Your task to perform on an android device: turn notification dots on Image 0: 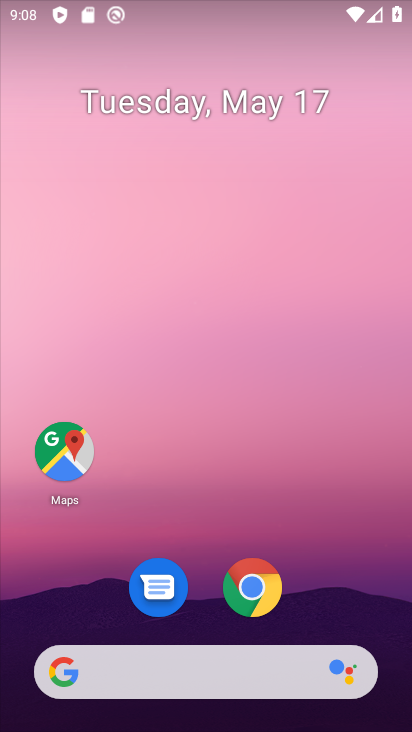
Step 0: drag from (368, 605) to (311, 259)
Your task to perform on an android device: turn notification dots on Image 1: 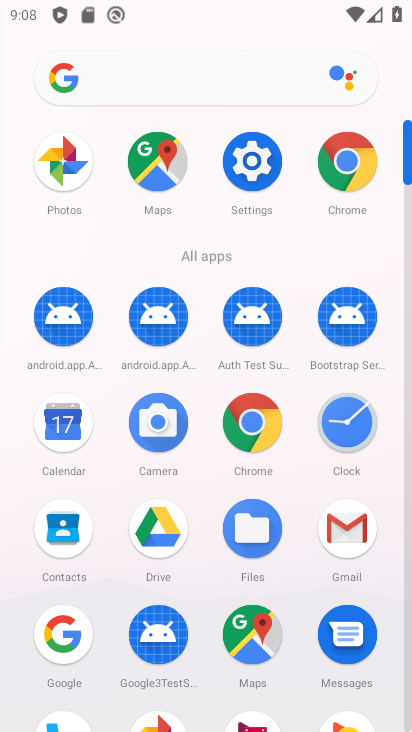
Step 1: click (256, 186)
Your task to perform on an android device: turn notification dots on Image 2: 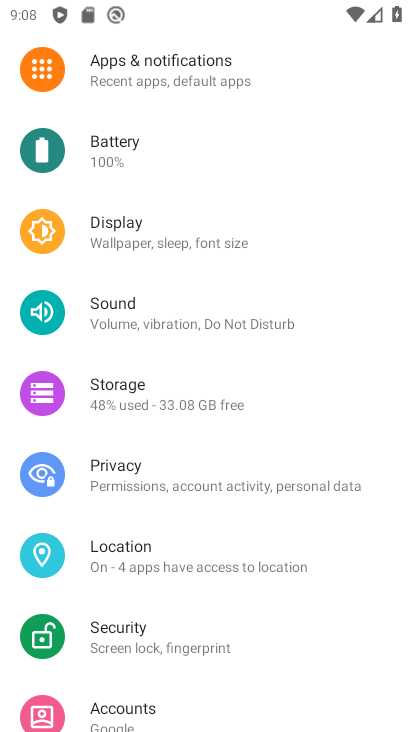
Step 2: drag from (195, 570) to (165, 687)
Your task to perform on an android device: turn notification dots on Image 3: 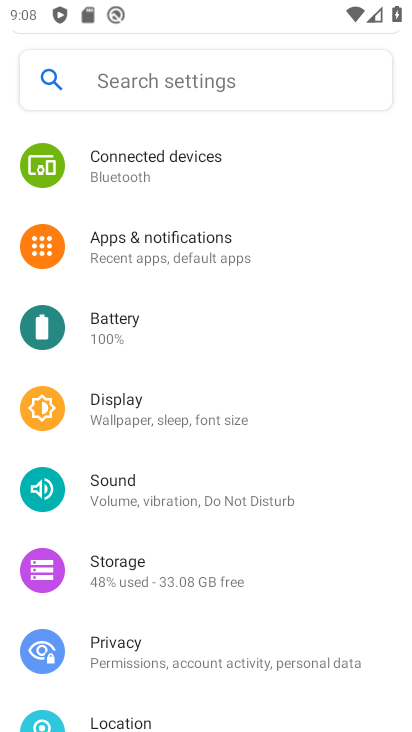
Step 3: click (164, 265)
Your task to perform on an android device: turn notification dots on Image 4: 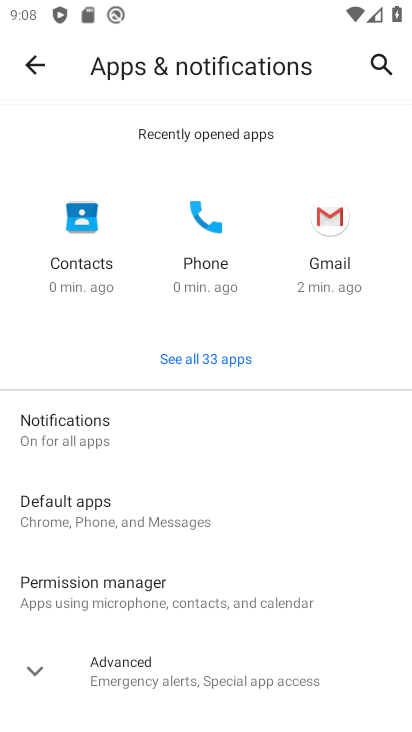
Step 4: drag from (196, 473) to (192, 276)
Your task to perform on an android device: turn notification dots on Image 5: 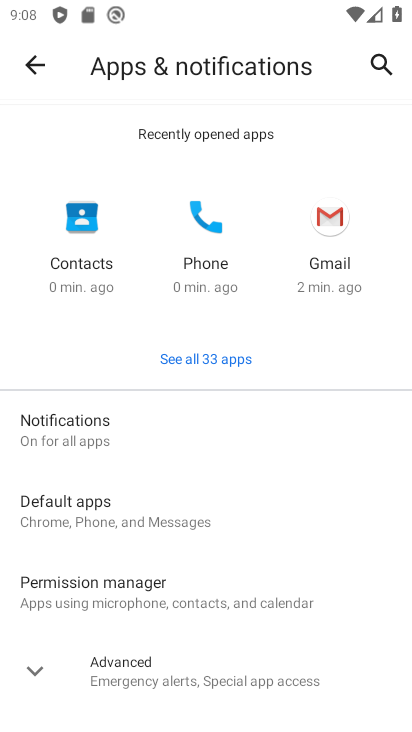
Step 5: click (157, 429)
Your task to perform on an android device: turn notification dots on Image 6: 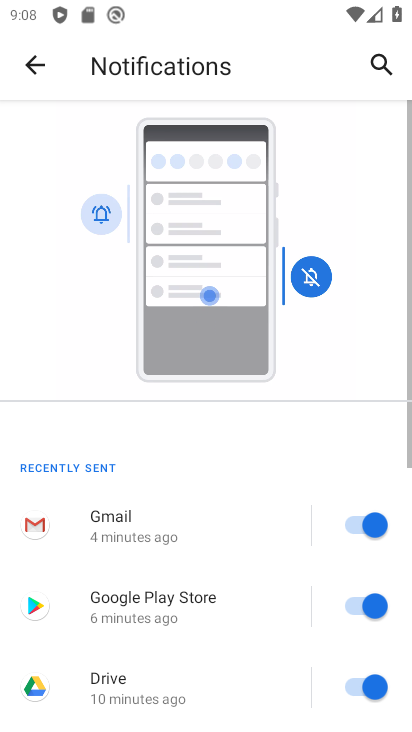
Step 6: drag from (179, 526) to (198, 198)
Your task to perform on an android device: turn notification dots on Image 7: 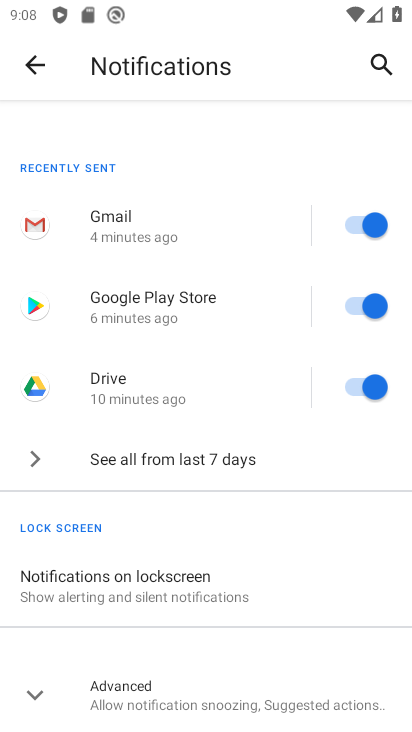
Step 7: drag from (196, 524) to (207, 288)
Your task to perform on an android device: turn notification dots on Image 8: 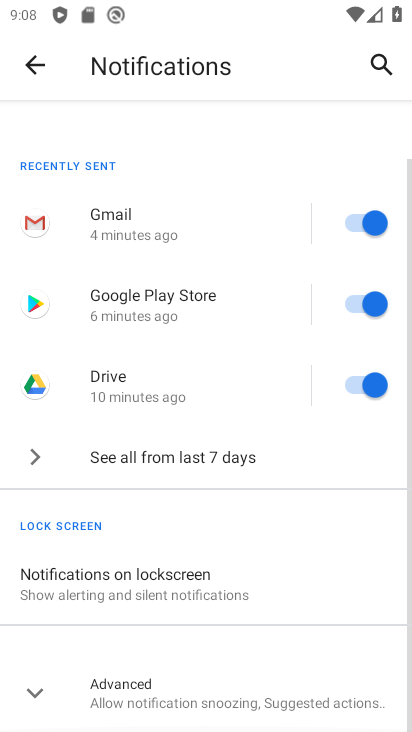
Step 8: click (152, 704)
Your task to perform on an android device: turn notification dots on Image 9: 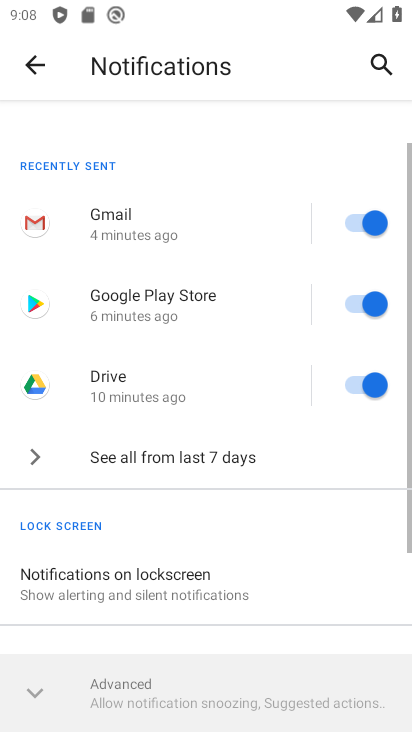
Step 9: task complete